Your task to perform on an android device: turn off priority inbox in the gmail app Image 0: 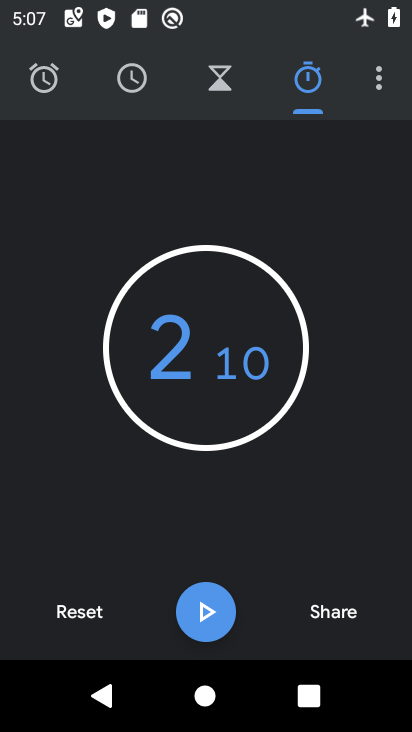
Step 0: press home button
Your task to perform on an android device: turn off priority inbox in the gmail app Image 1: 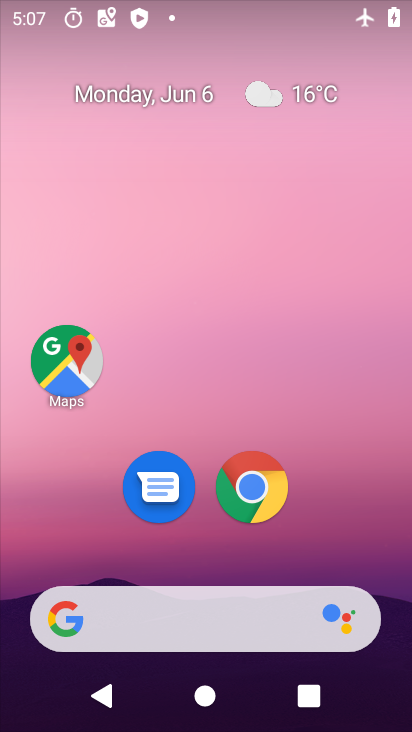
Step 1: drag from (340, 528) to (299, 122)
Your task to perform on an android device: turn off priority inbox in the gmail app Image 2: 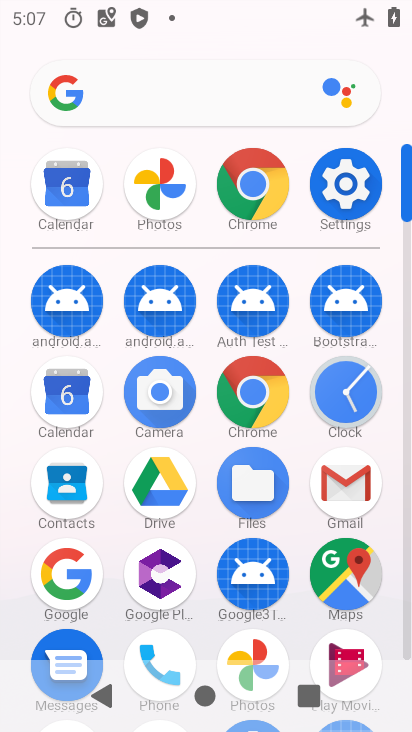
Step 2: click (348, 487)
Your task to perform on an android device: turn off priority inbox in the gmail app Image 3: 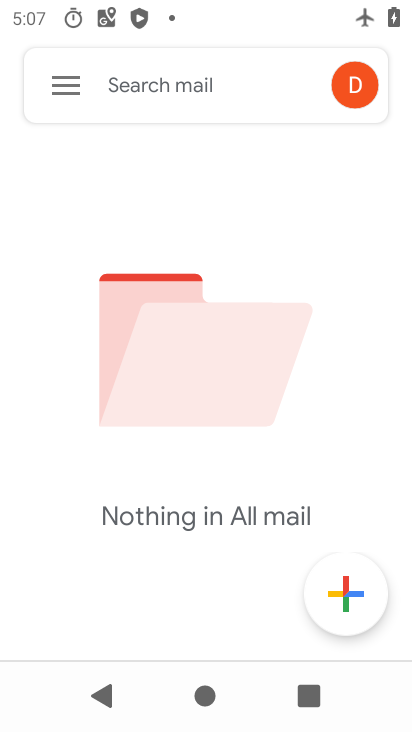
Step 3: click (67, 82)
Your task to perform on an android device: turn off priority inbox in the gmail app Image 4: 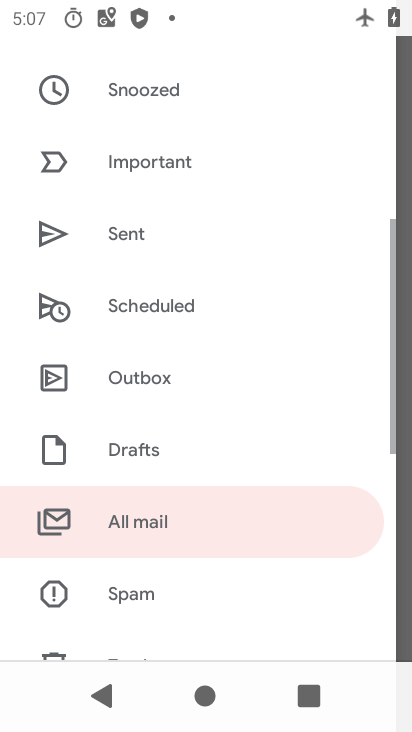
Step 4: drag from (200, 582) to (335, 92)
Your task to perform on an android device: turn off priority inbox in the gmail app Image 5: 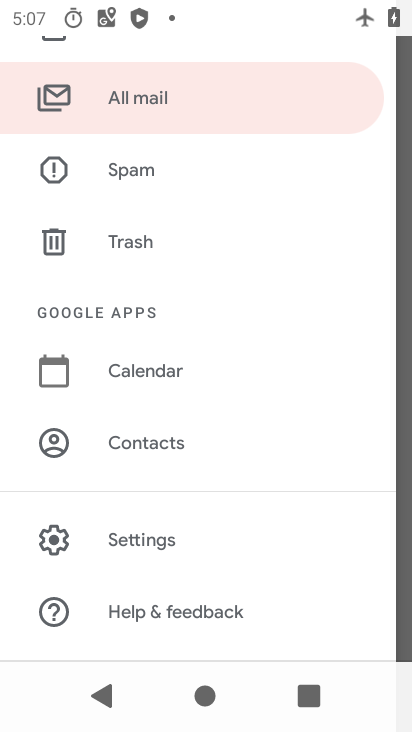
Step 5: click (185, 539)
Your task to perform on an android device: turn off priority inbox in the gmail app Image 6: 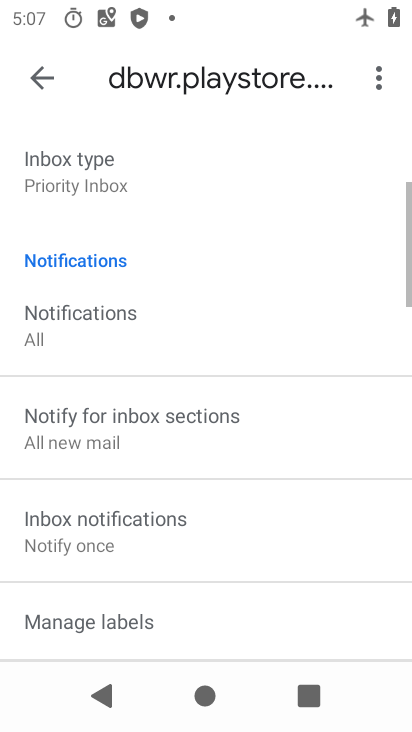
Step 6: click (132, 186)
Your task to perform on an android device: turn off priority inbox in the gmail app Image 7: 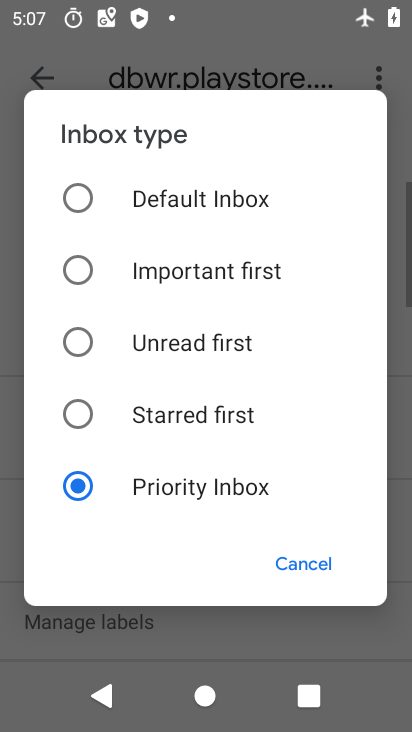
Step 7: task complete